Your task to perform on an android device: turn on the 12-hour format for clock Image 0: 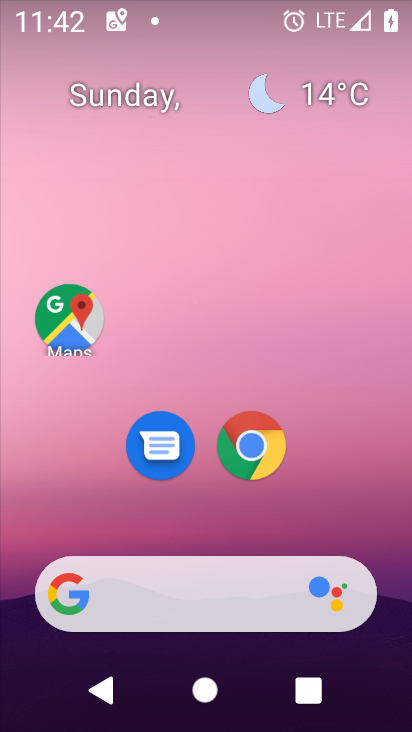
Step 0: drag from (188, 512) to (250, 136)
Your task to perform on an android device: turn on the 12-hour format for clock Image 1: 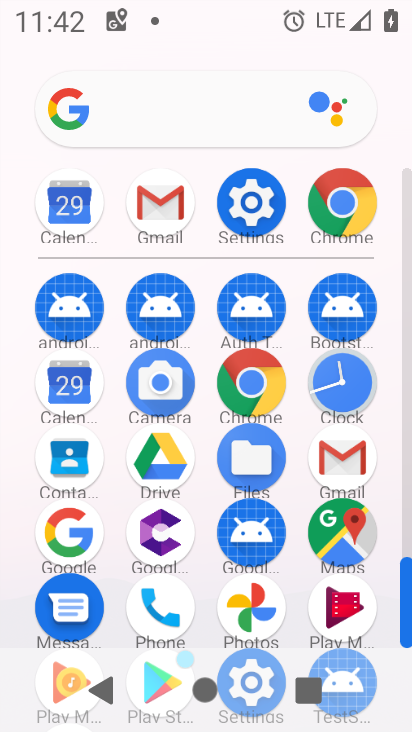
Step 1: click (348, 382)
Your task to perform on an android device: turn on the 12-hour format for clock Image 2: 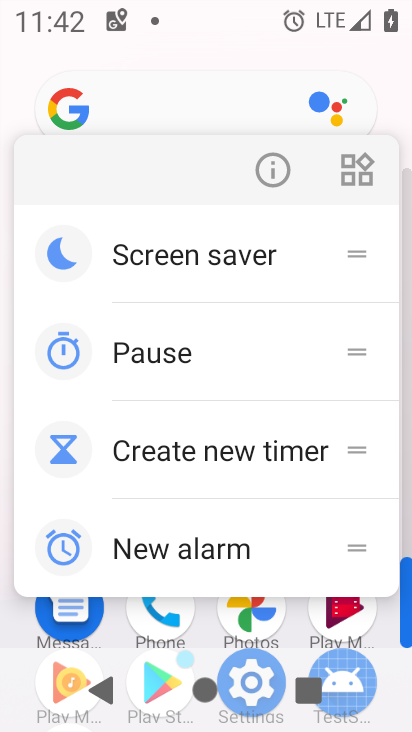
Step 2: click (270, 153)
Your task to perform on an android device: turn on the 12-hour format for clock Image 3: 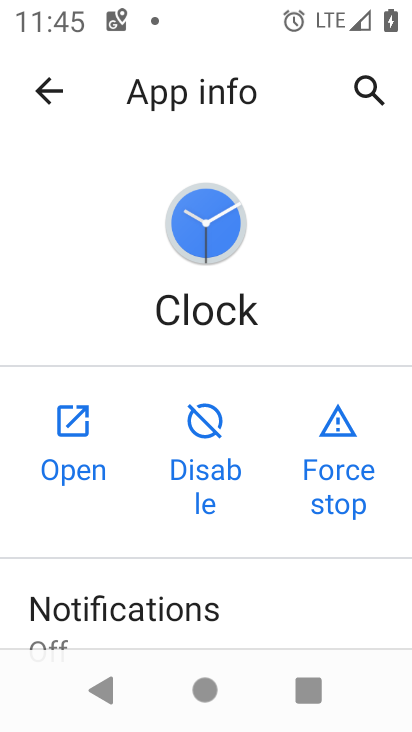
Step 3: click (61, 437)
Your task to perform on an android device: turn on the 12-hour format for clock Image 4: 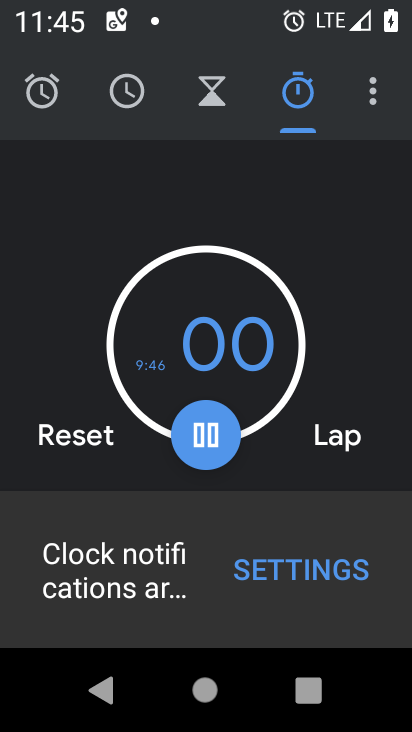
Step 4: click (373, 99)
Your task to perform on an android device: turn on the 12-hour format for clock Image 5: 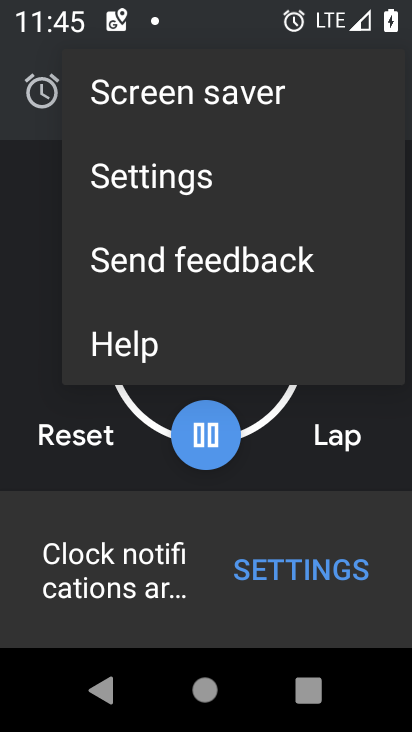
Step 5: click (155, 132)
Your task to perform on an android device: turn on the 12-hour format for clock Image 6: 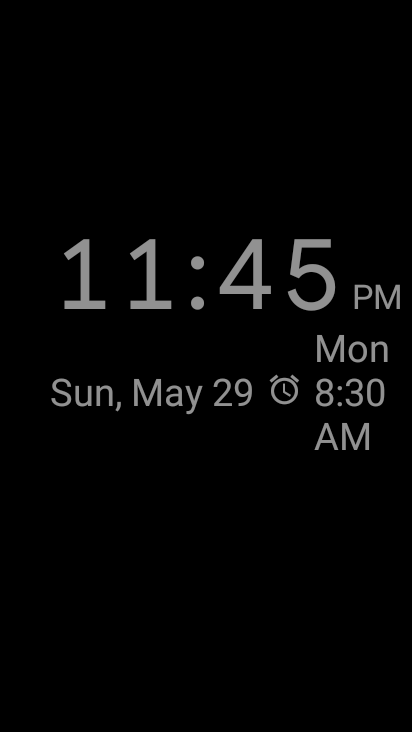
Step 6: click (119, 111)
Your task to perform on an android device: turn on the 12-hour format for clock Image 7: 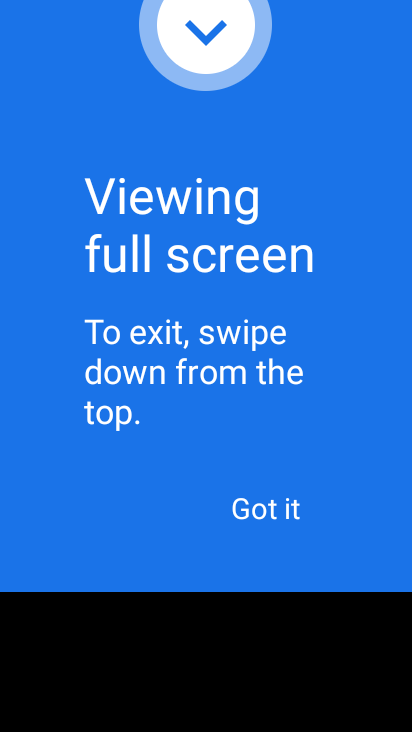
Step 7: click (242, 134)
Your task to perform on an android device: turn on the 12-hour format for clock Image 8: 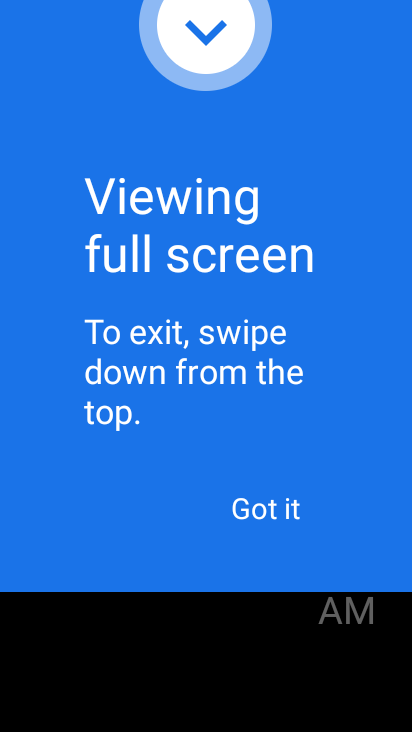
Step 8: click (259, 523)
Your task to perform on an android device: turn on the 12-hour format for clock Image 9: 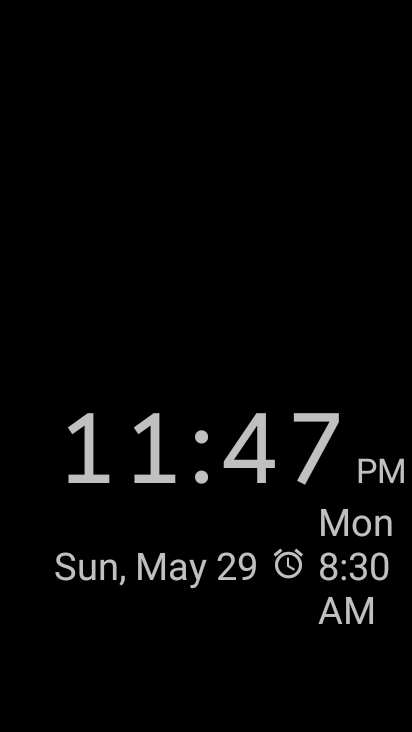
Step 9: click (276, 209)
Your task to perform on an android device: turn on the 12-hour format for clock Image 10: 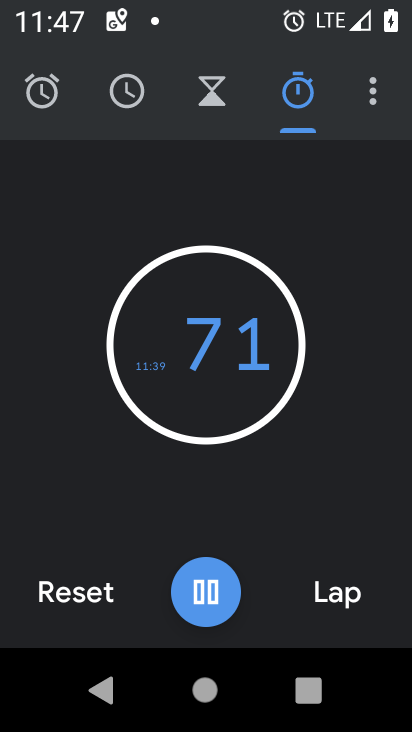
Step 10: drag from (376, 94) to (202, 216)
Your task to perform on an android device: turn on the 12-hour format for clock Image 11: 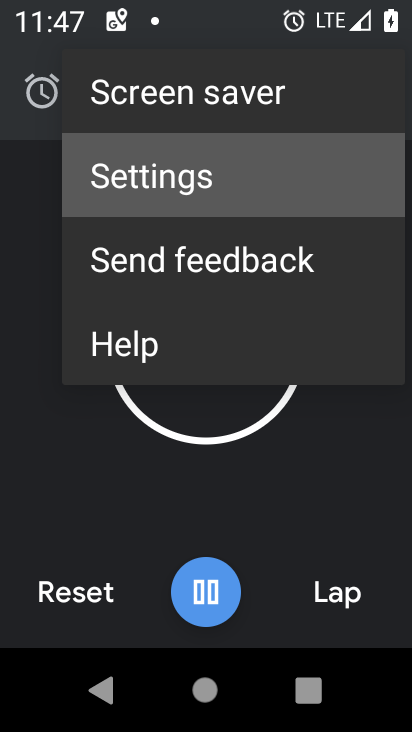
Step 11: click (201, 188)
Your task to perform on an android device: turn on the 12-hour format for clock Image 12: 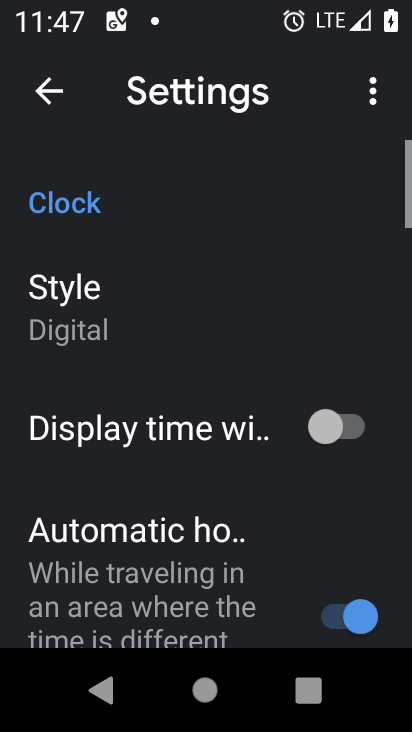
Step 12: drag from (178, 525) to (286, 64)
Your task to perform on an android device: turn on the 12-hour format for clock Image 13: 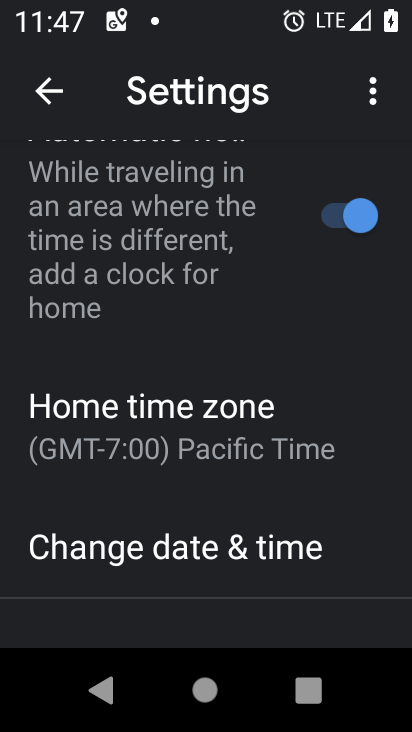
Step 13: click (189, 566)
Your task to perform on an android device: turn on the 12-hour format for clock Image 14: 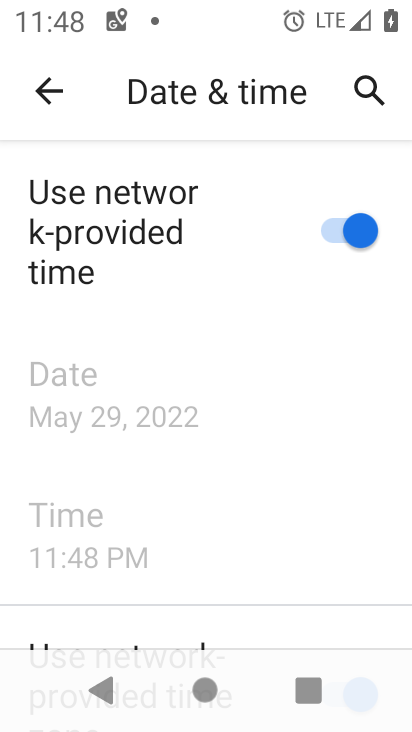
Step 14: task complete